Your task to perform on an android device: turn on wifi Image 0: 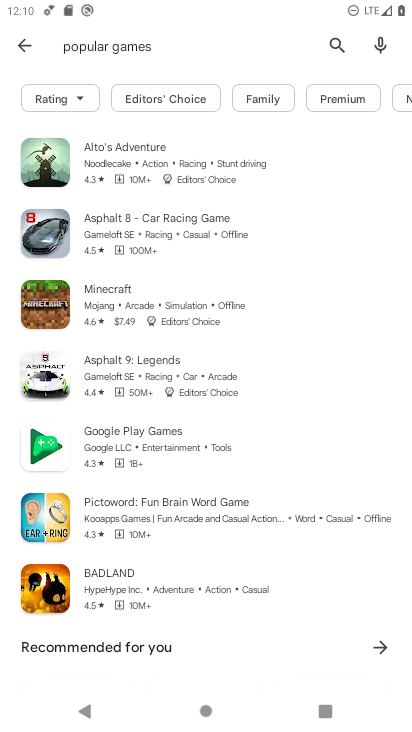
Step 0: press home button
Your task to perform on an android device: turn on wifi Image 1: 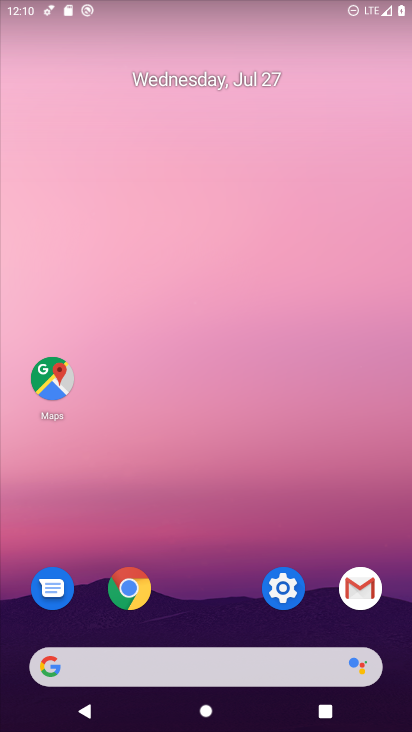
Step 1: click (271, 598)
Your task to perform on an android device: turn on wifi Image 2: 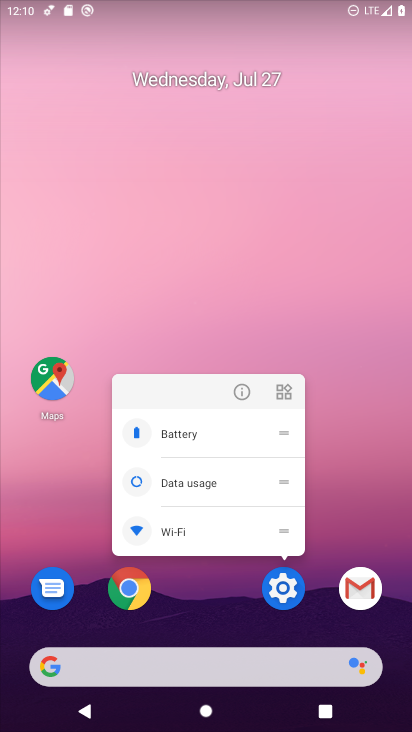
Step 2: click (277, 590)
Your task to perform on an android device: turn on wifi Image 3: 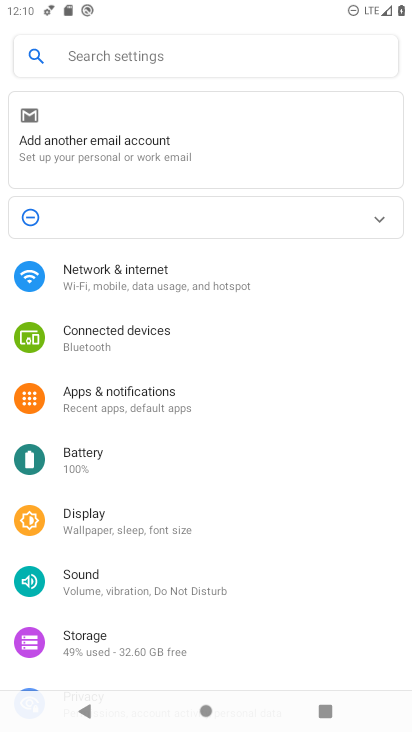
Step 3: click (128, 280)
Your task to perform on an android device: turn on wifi Image 4: 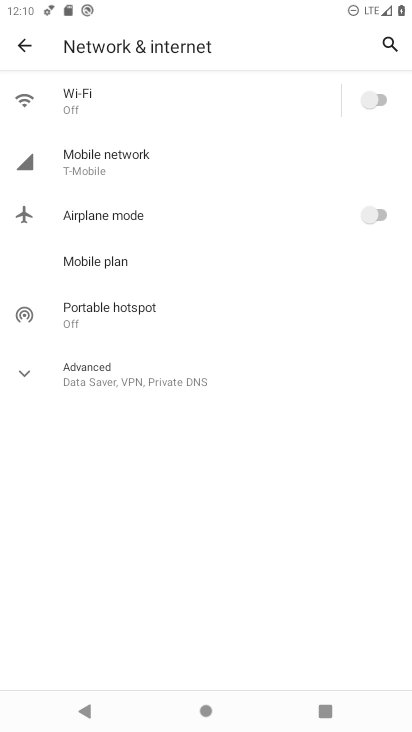
Step 4: click (358, 95)
Your task to perform on an android device: turn on wifi Image 5: 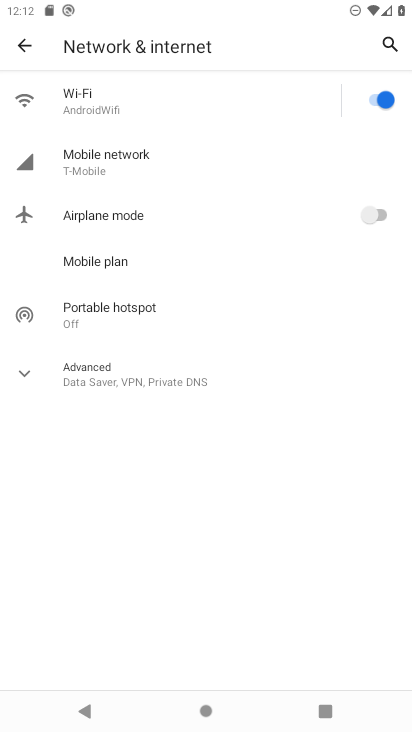
Step 5: task complete